Your task to perform on an android device: change the clock style Image 0: 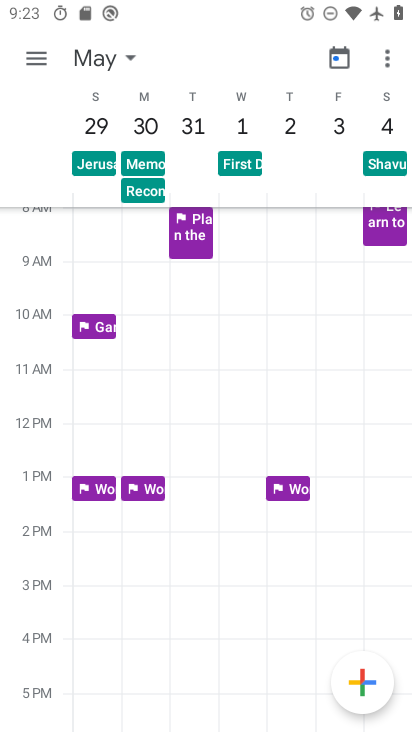
Step 0: press home button
Your task to perform on an android device: change the clock style Image 1: 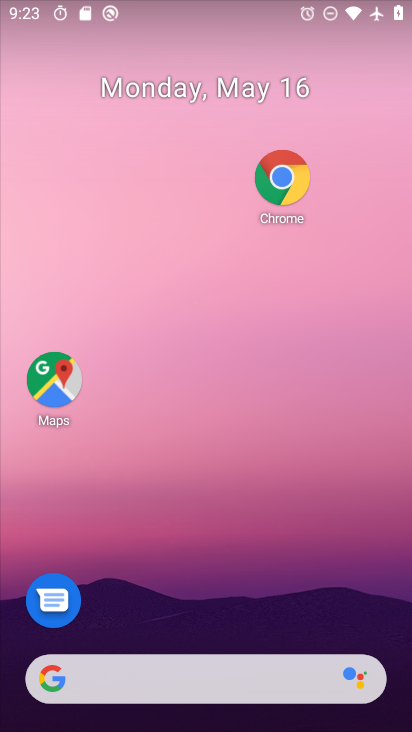
Step 1: drag from (202, 639) to (307, 209)
Your task to perform on an android device: change the clock style Image 2: 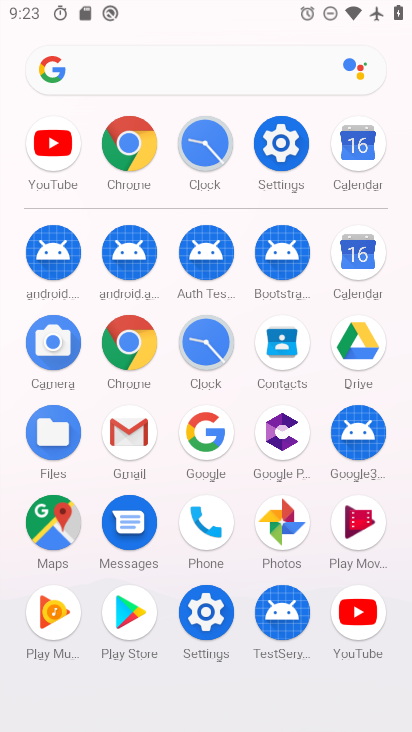
Step 2: click (210, 346)
Your task to perform on an android device: change the clock style Image 3: 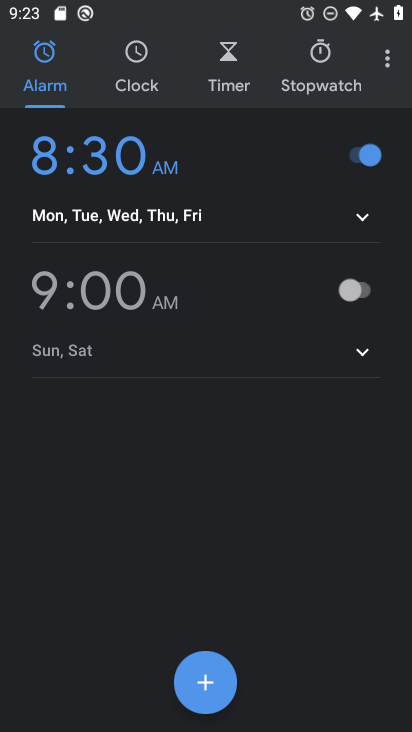
Step 3: click (386, 59)
Your task to perform on an android device: change the clock style Image 4: 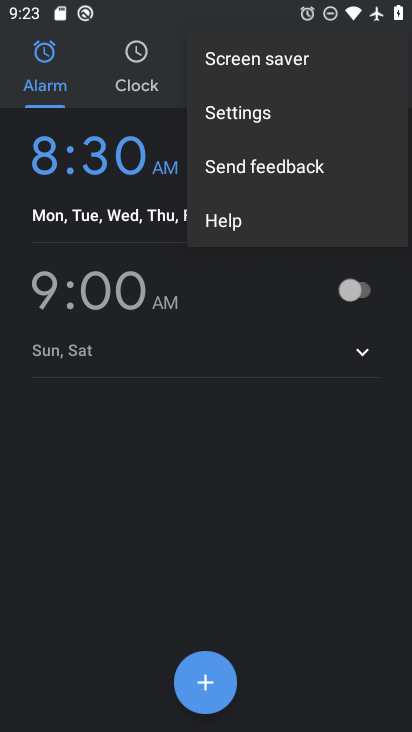
Step 4: click (269, 115)
Your task to perform on an android device: change the clock style Image 5: 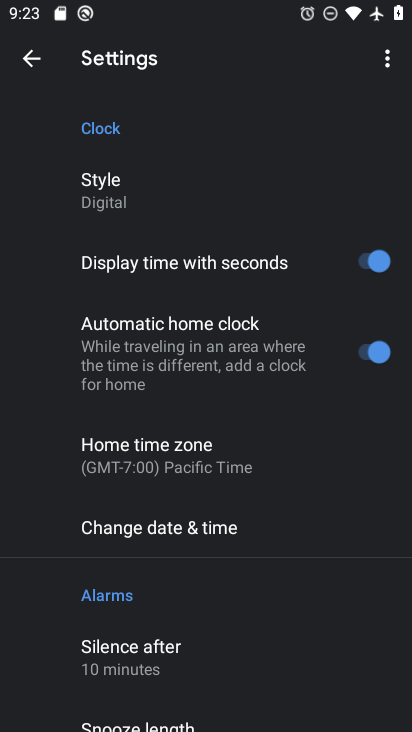
Step 5: click (125, 198)
Your task to perform on an android device: change the clock style Image 6: 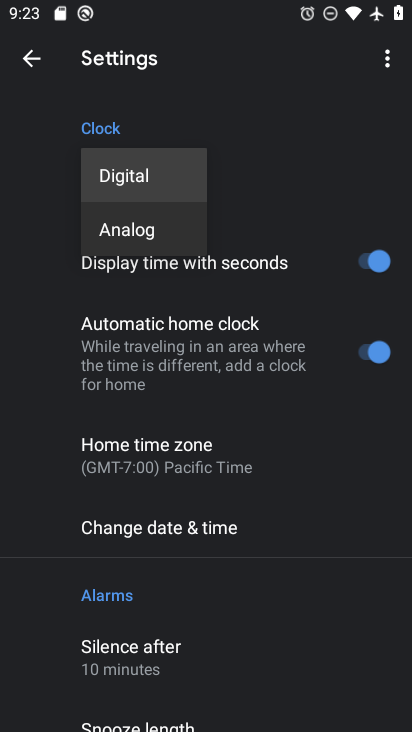
Step 6: click (132, 233)
Your task to perform on an android device: change the clock style Image 7: 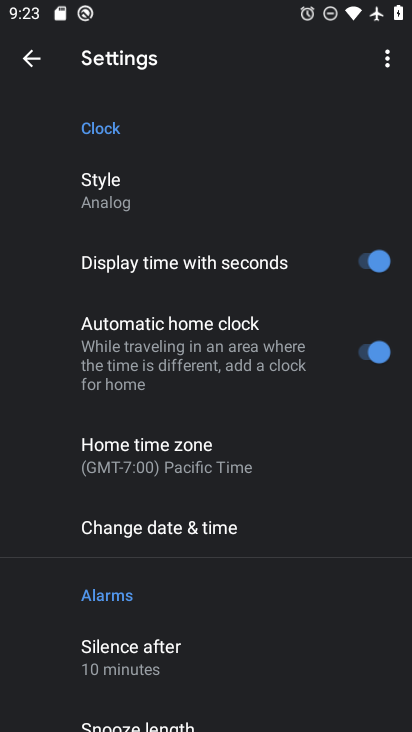
Step 7: task complete